Your task to perform on an android device: change the clock display to digital Image 0: 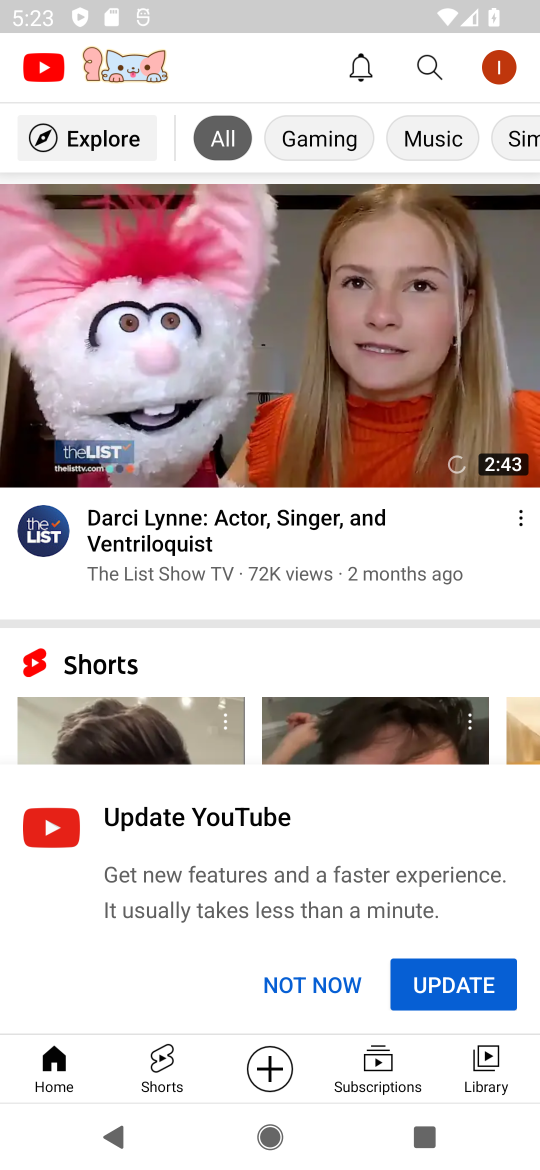
Step 0: press home button
Your task to perform on an android device: change the clock display to digital Image 1: 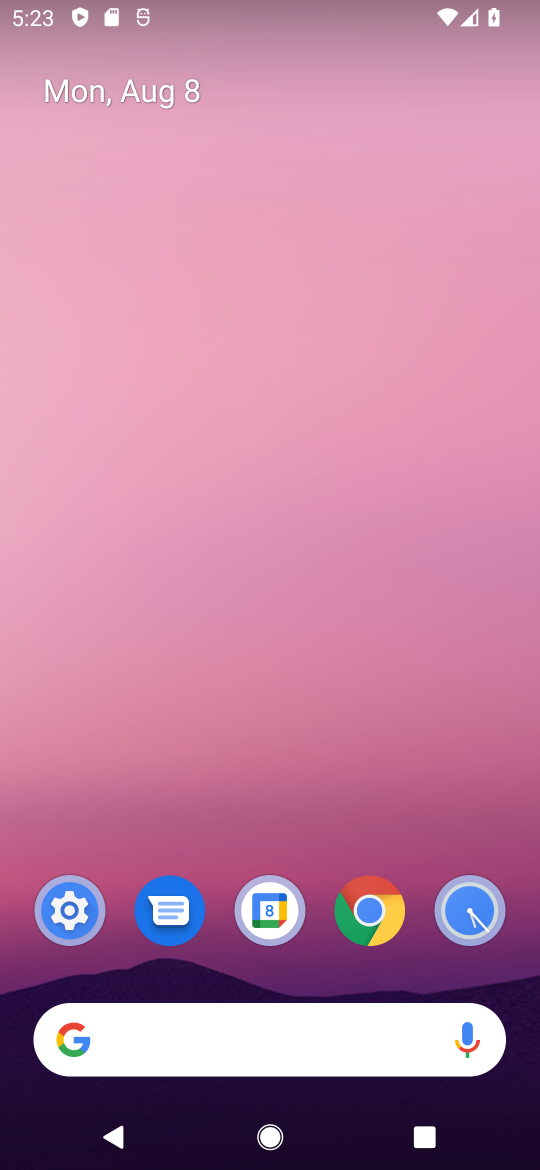
Step 1: click (466, 917)
Your task to perform on an android device: change the clock display to digital Image 2: 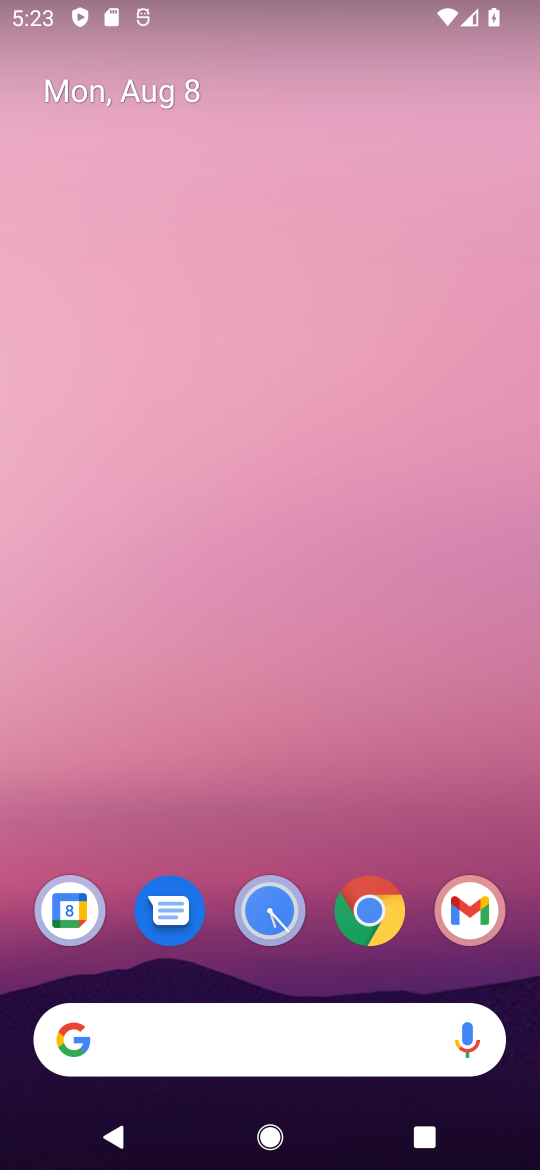
Step 2: click (270, 923)
Your task to perform on an android device: change the clock display to digital Image 3: 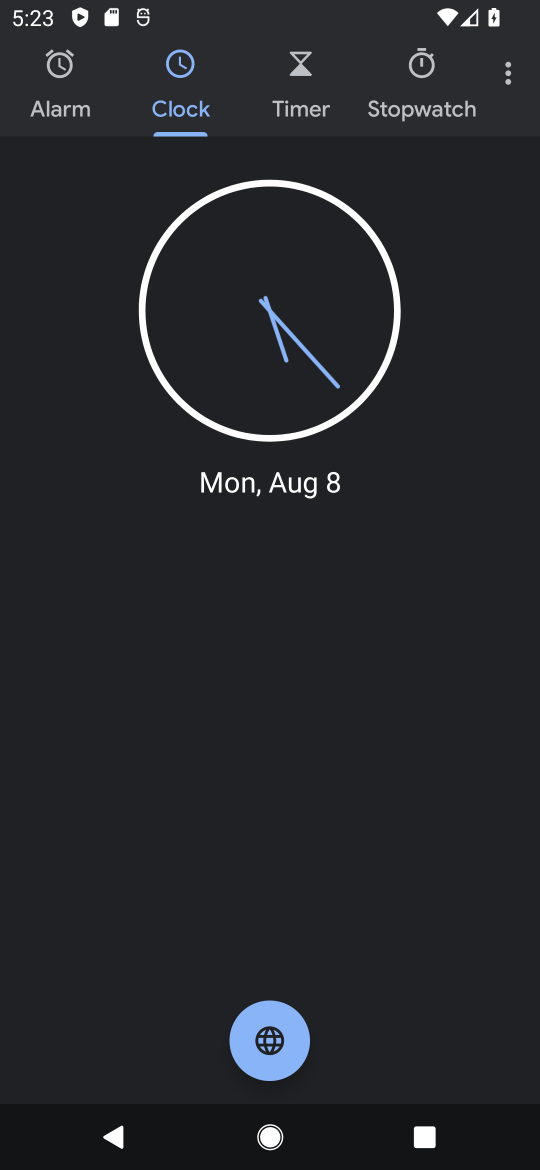
Step 3: click (509, 75)
Your task to perform on an android device: change the clock display to digital Image 4: 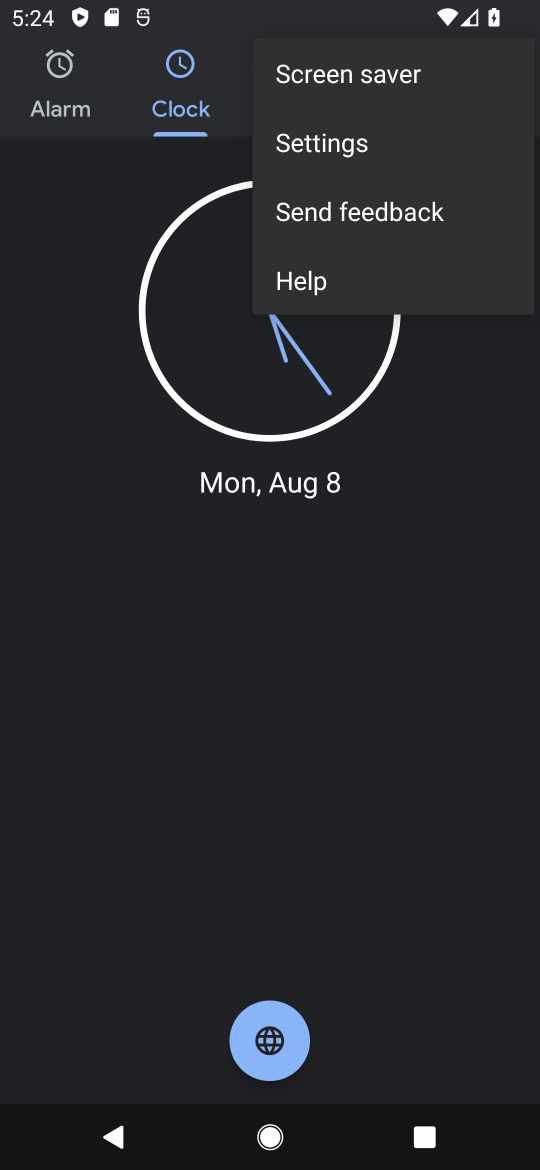
Step 4: click (366, 158)
Your task to perform on an android device: change the clock display to digital Image 5: 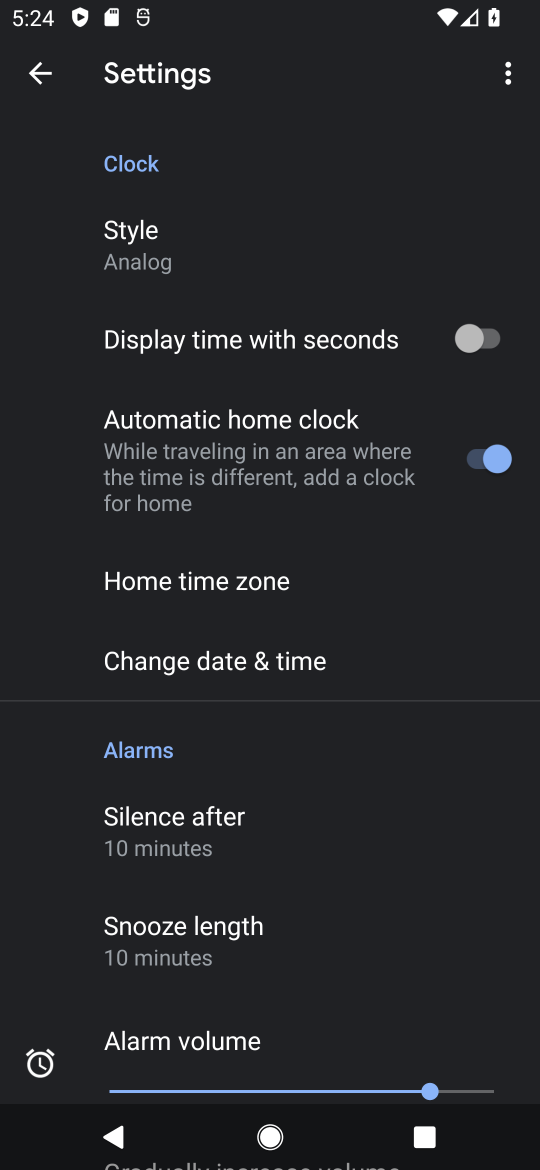
Step 5: click (157, 251)
Your task to perform on an android device: change the clock display to digital Image 6: 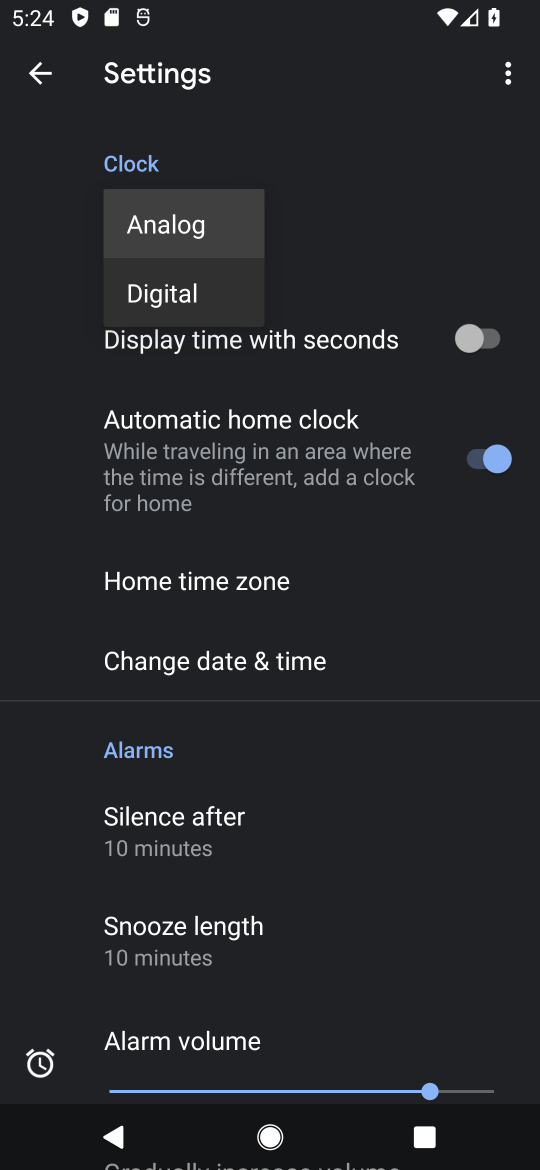
Step 6: click (170, 294)
Your task to perform on an android device: change the clock display to digital Image 7: 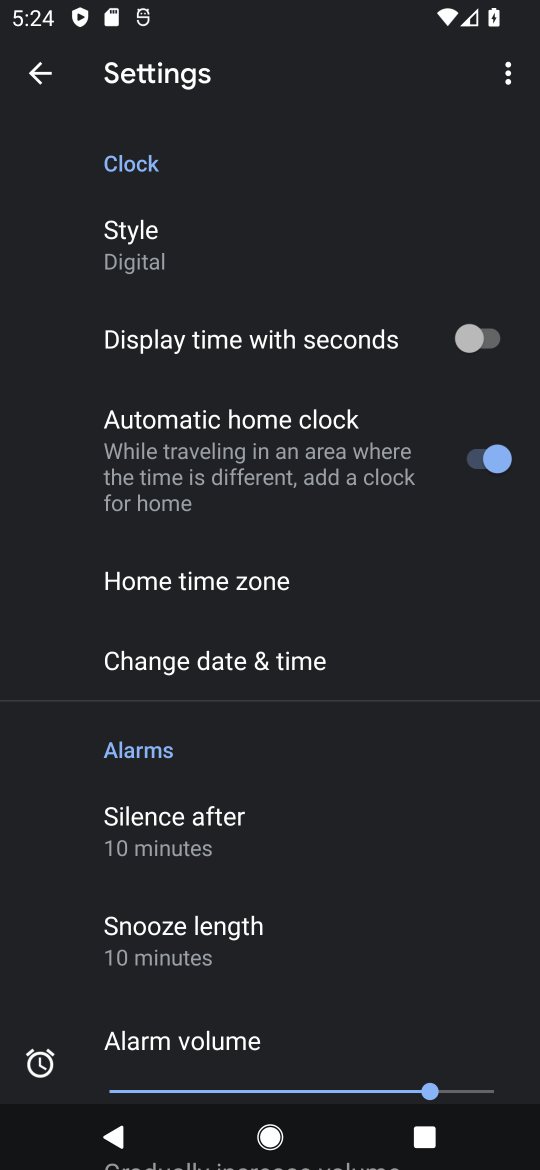
Step 7: task complete